Your task to perform on an android device: change notification settings in the gmail app Image 0: 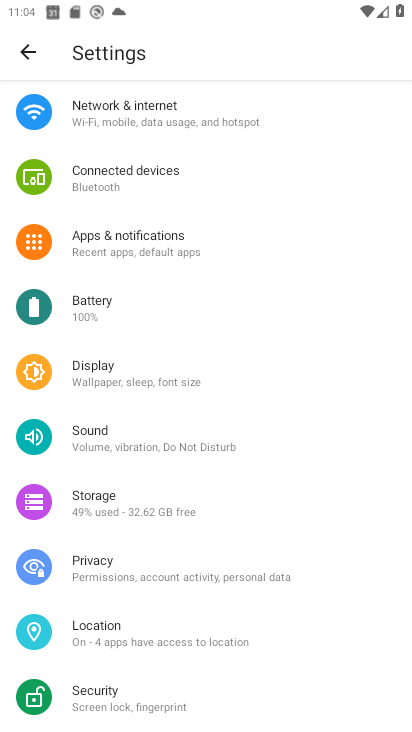
Step 0: press back button
Your task to perform on an android device: change notification settings in the gmail app Image 1: 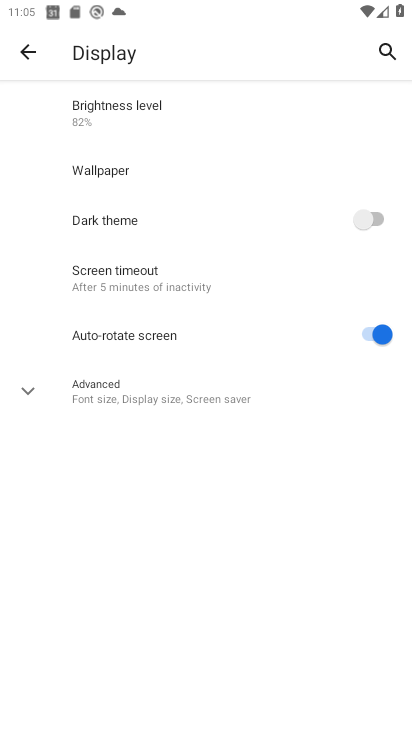
Step 1: press home button
Your task to perform on an android device: change notification settings in the gmail app Image 2: 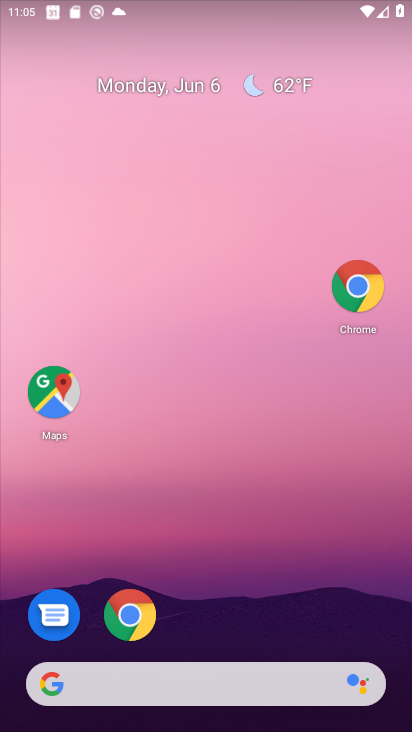
Step 2: drag from (200, 453) to (145, 0)
Your task to perform on an android device: change notification settings in the gmail app Image 3: 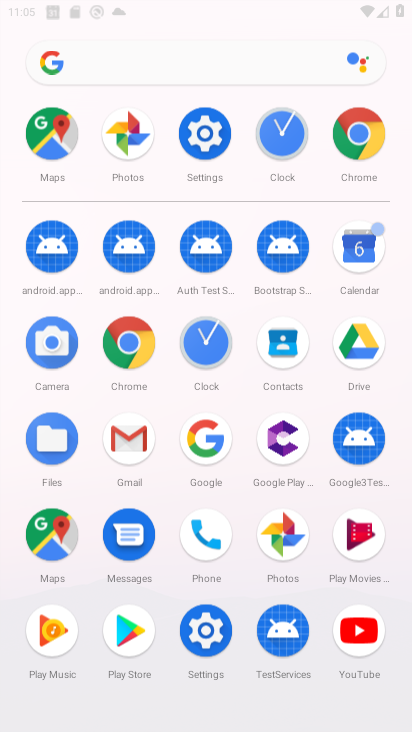
Step 3: drag from (240, 653) to (183, 81)
Your task to perform on an android device: change notification settings in the gmail app Image 4: 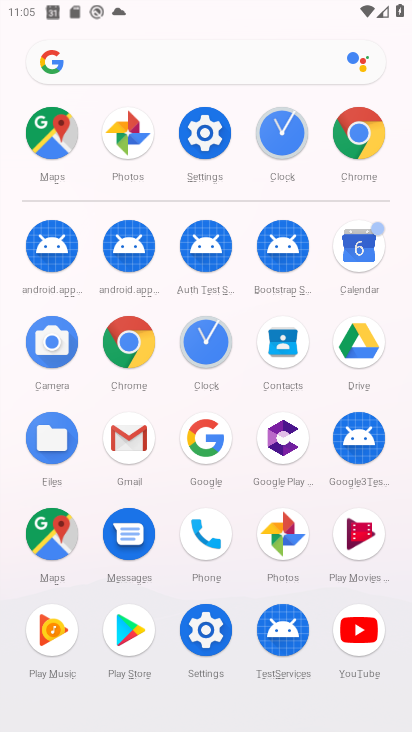
Step 4: click (126, 446)
Your task to perform on an android device: change notification settings in the gmail app Image 5: 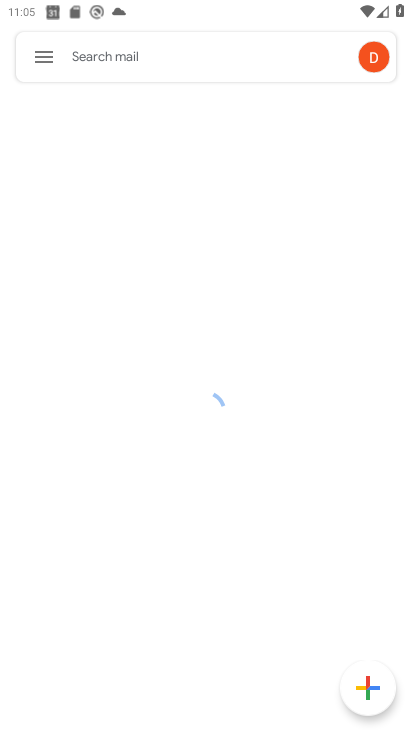
Step 5: click (51, 54)
Your task to perform on an android device: change notification settings in the gmail app Image 6: 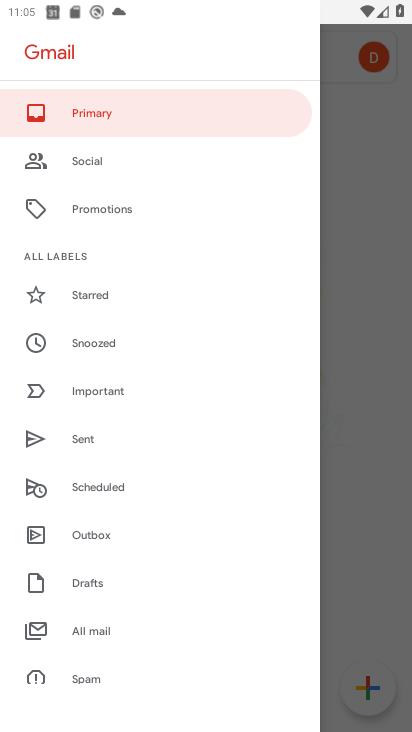
Step 6: drag from (115, 567) to (78, 171)
Your task to perform on an android device: change notification settings in the gmail app Image 7: 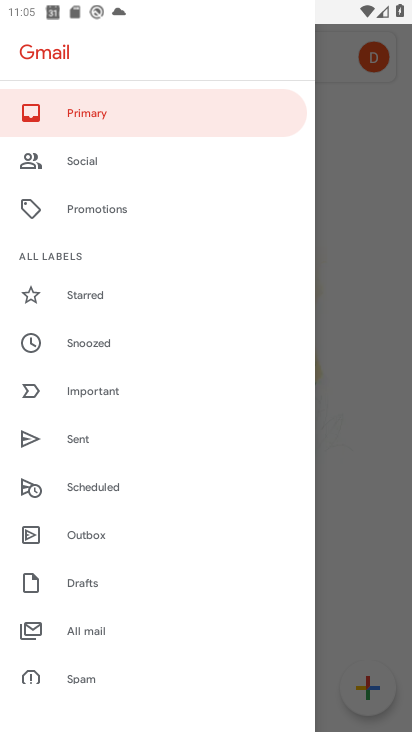
Step 7: drag from (136, 408) to (126, 37)
Your task to perform on an android device: change notification settings in the gmail app Image 8: 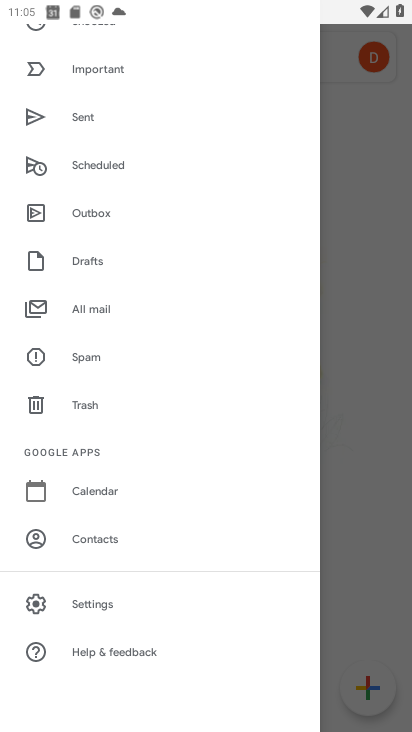
Step 8: click (92, 604)
Your task to perform on an android device: change notification settings in the gmail app Image 9: 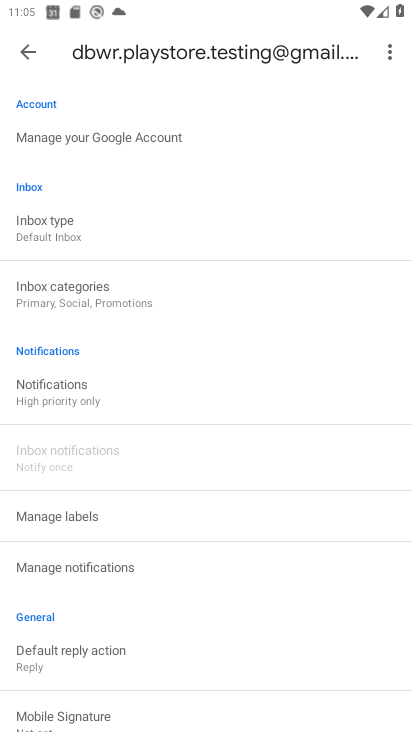
Step 9: click (52, 394)
Your task to perform on an android device: change notification settings in the gmail app Image 10: 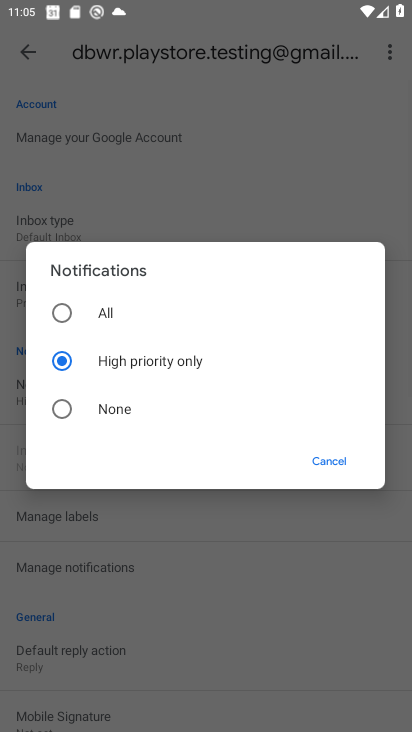
Step 10: click (57, 311)
Your task to perform on an android device: change notification settings in the gmail app Image 11: 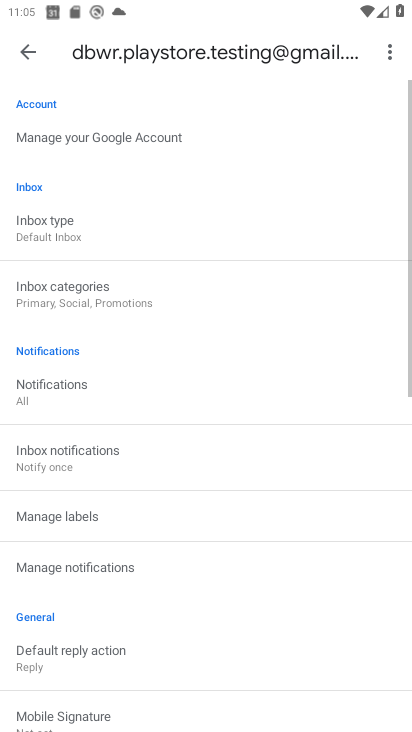
Step 11: task complete